Your task to perform on an android device: Show the shopping cart on costco. Add asus zenbook to the cart on costco Image 0: 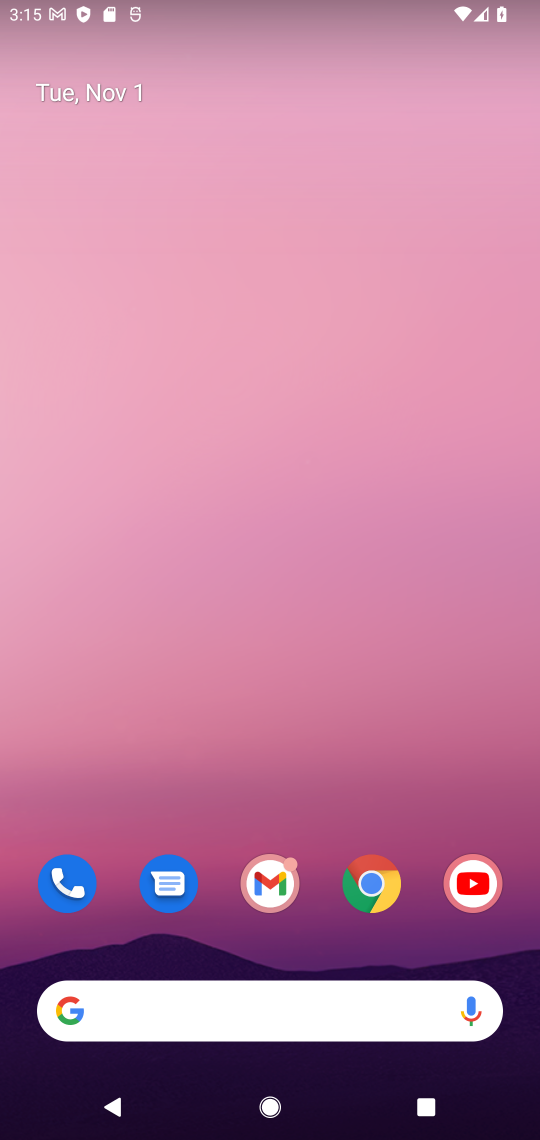
Step 0: click (367, 900)
Your task to perform on an android device: Show the shopping cart on costco. Add asus zenbook to the cart on costco Image 1: 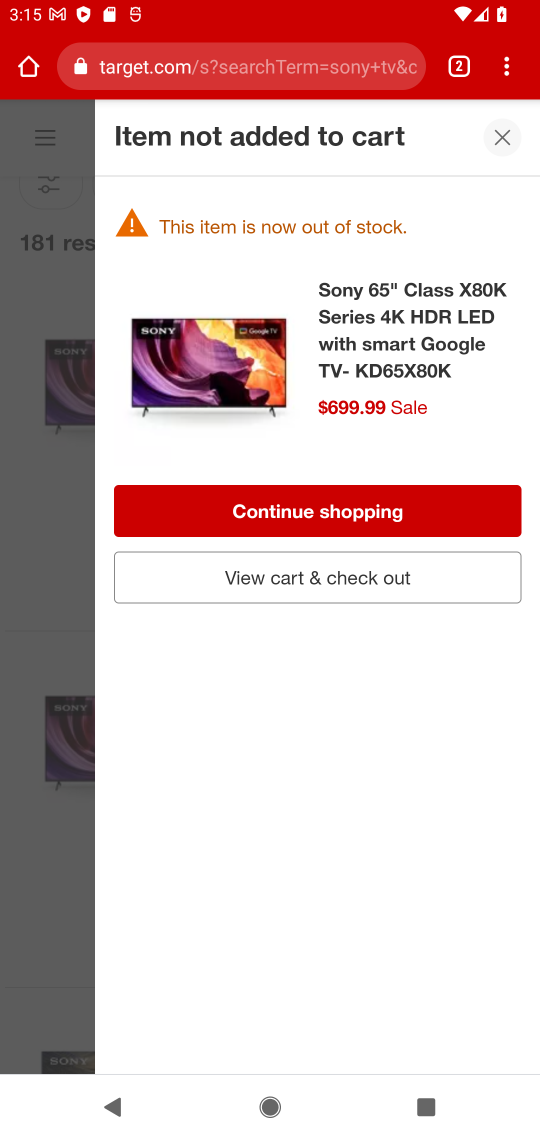
Step 1: click (456, 68)
Your task to perform on an android device: Show the shopping cart on costco. Add asus zenbook to the cart on costco Image 2: 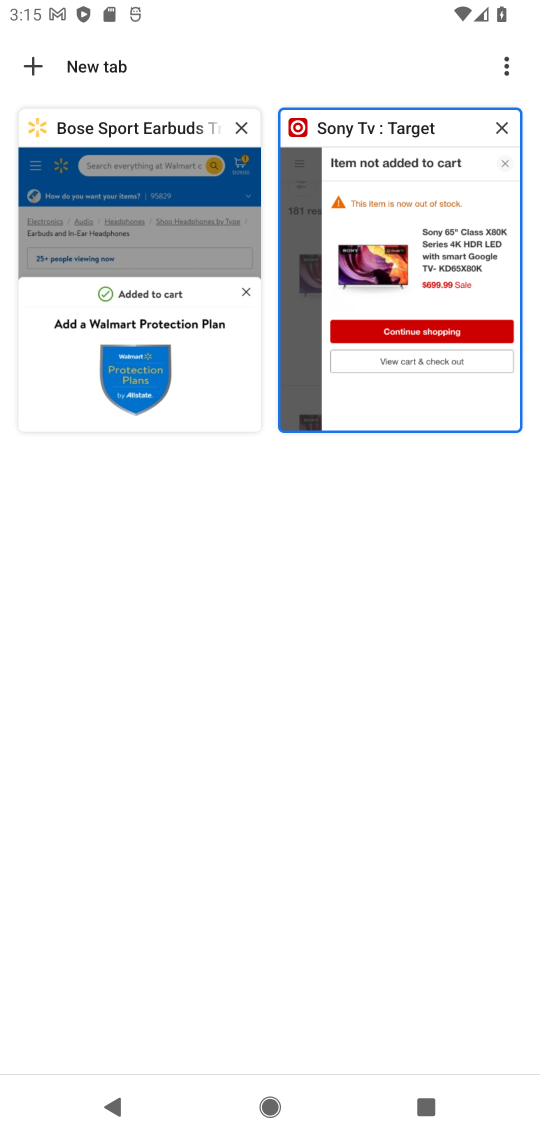
Step 2: click (31, 68)
Your task to perform on an android device: Show the shopping cart on costco. Add asus zenbook to the cart on costco Image 3: 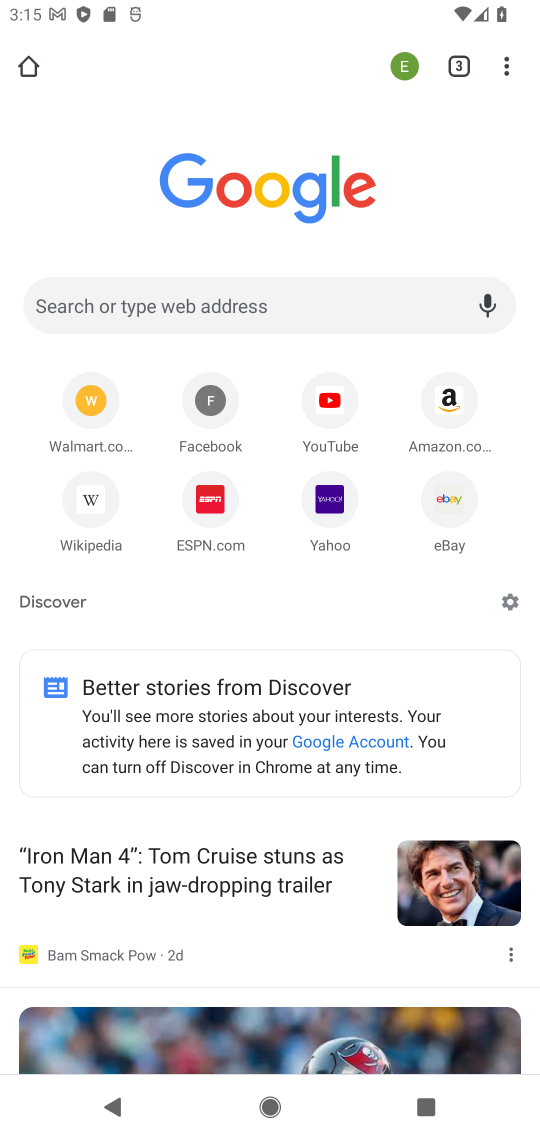
Step 3: click (336, 322)
Your task to perform on an android device: Show the shopping cart on costco. Add asus zenbook to the cart on costco Image 4: 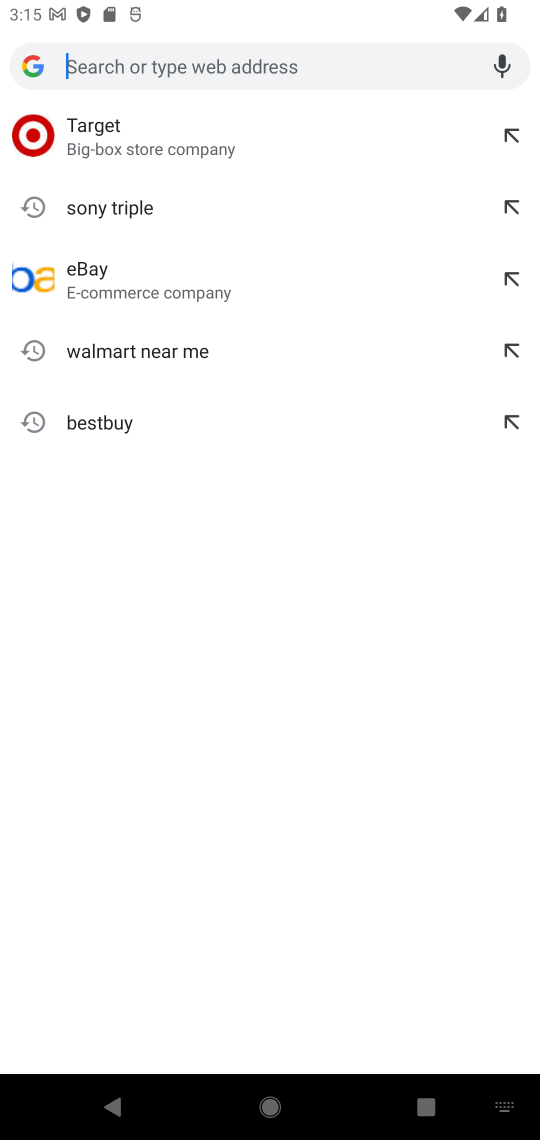
Step 4: type "costco"
Your task to perform on an android device: Show the shopping cart on costco. Add asus zenbook to the cart on costco Image 5: 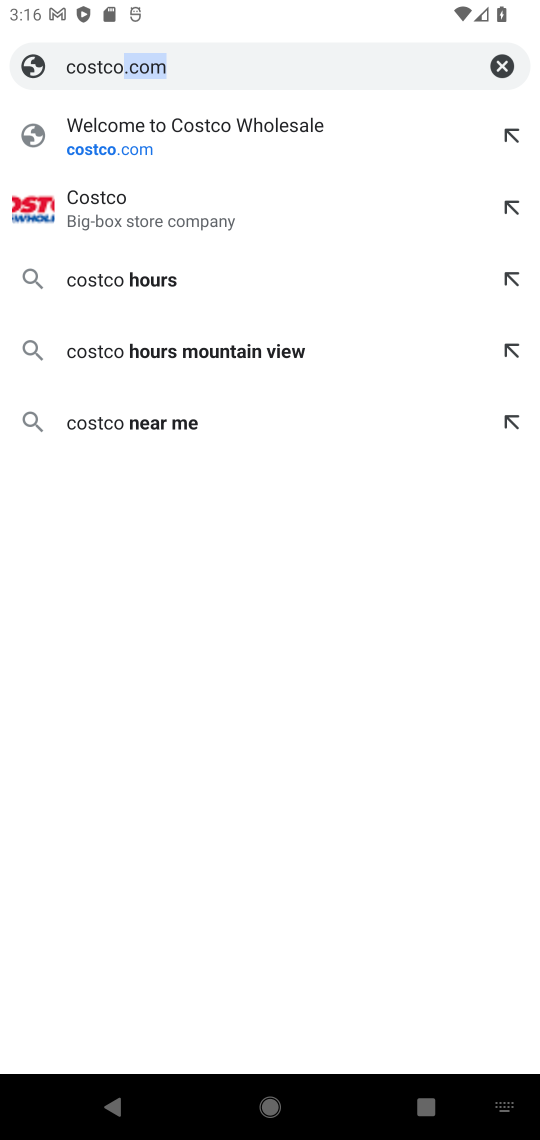
Step 5: click (82, 201)
Your task to perform on an android device: Show the shopping cart on costco. Add asus zenbook to the cart on costco Image 6: 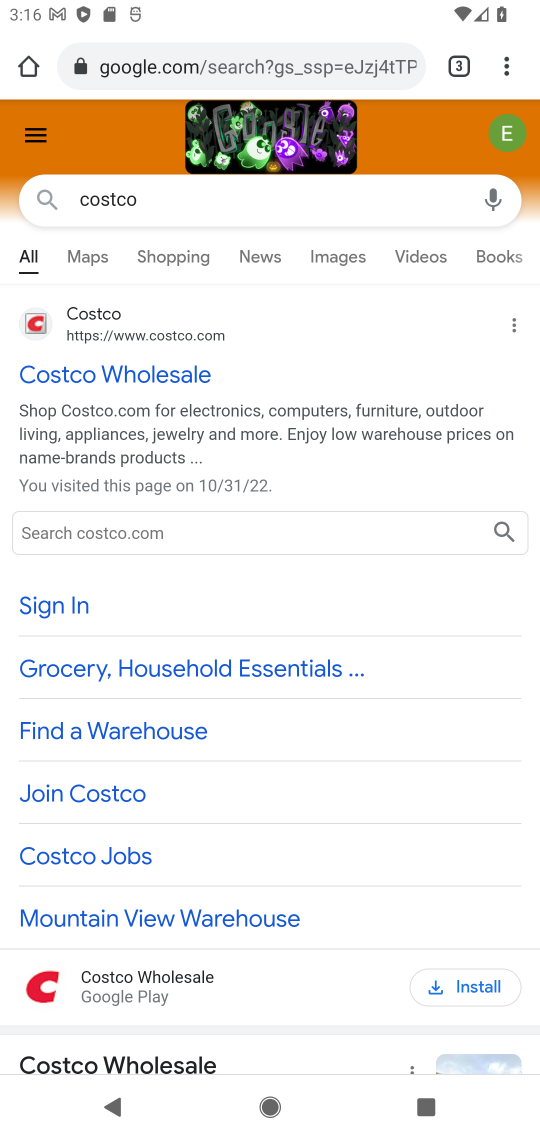
Step 6: click (42, 204)
Your task to perform on an android device: Show the shopping cart on costco. Add asus zenbook to the cart on costco Image 7: 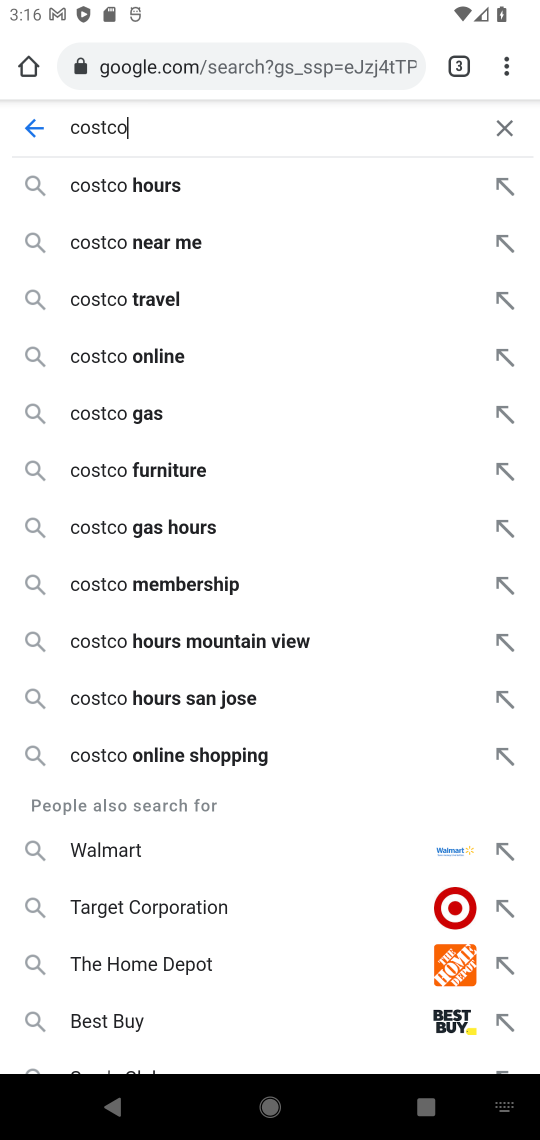
Step 7: click (497, 122)
Your task to perform on an android device: Show the shopping cart on costco. Add asus zenbook to the cart on costco Image 8: 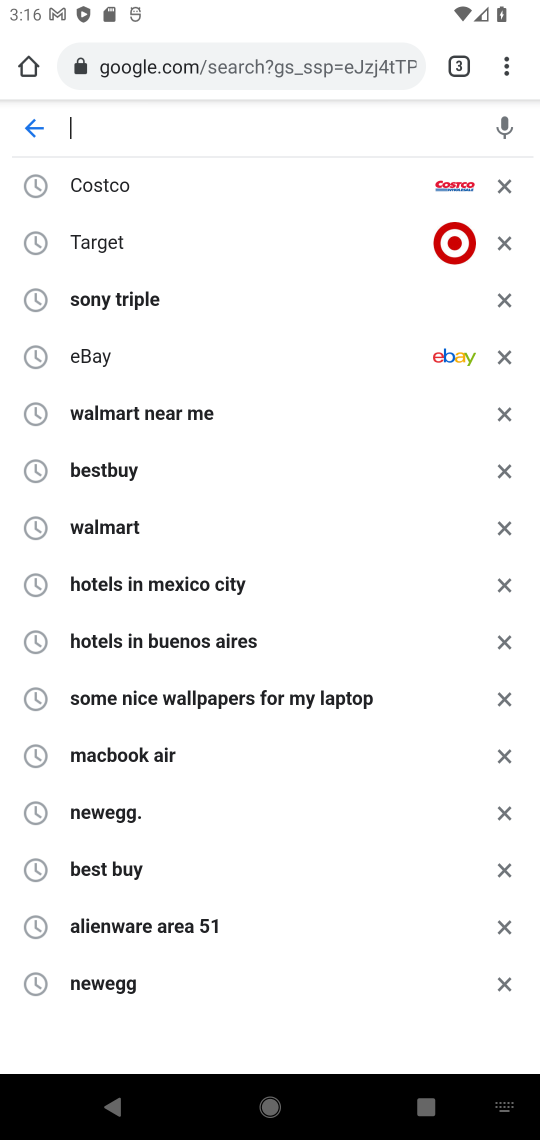
Step 8: click (121, 188)
Your task to perform on an android device: Show the shopping cart on costco. Add asus zenbook to the cart on costco Image 9: 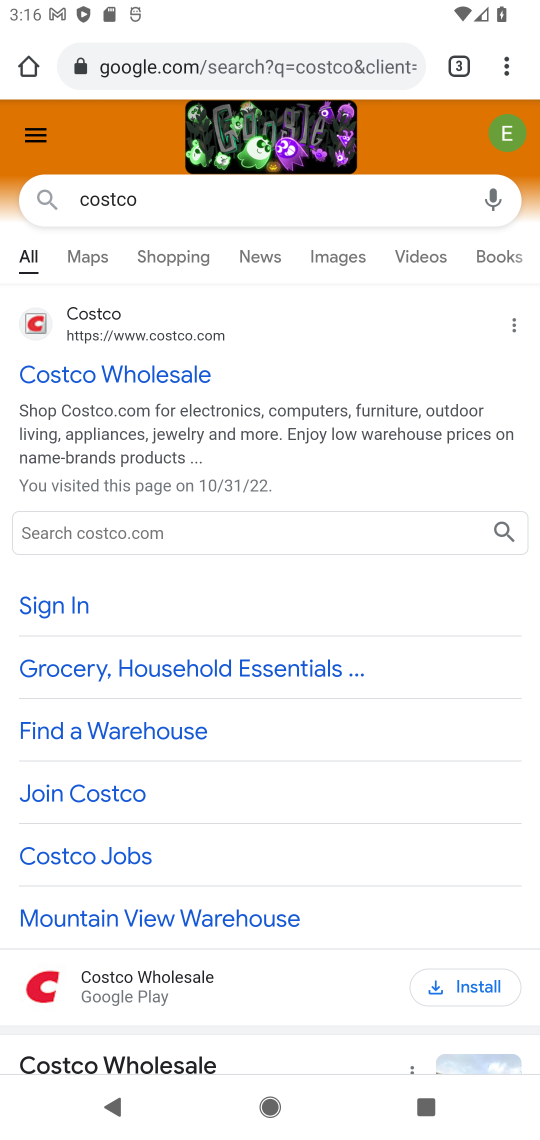
Step 9: click (107, 377)
Your task to perform on an android device: Show the shopping cart on costco. Add asus zenbook to the cart on costco Image 10: 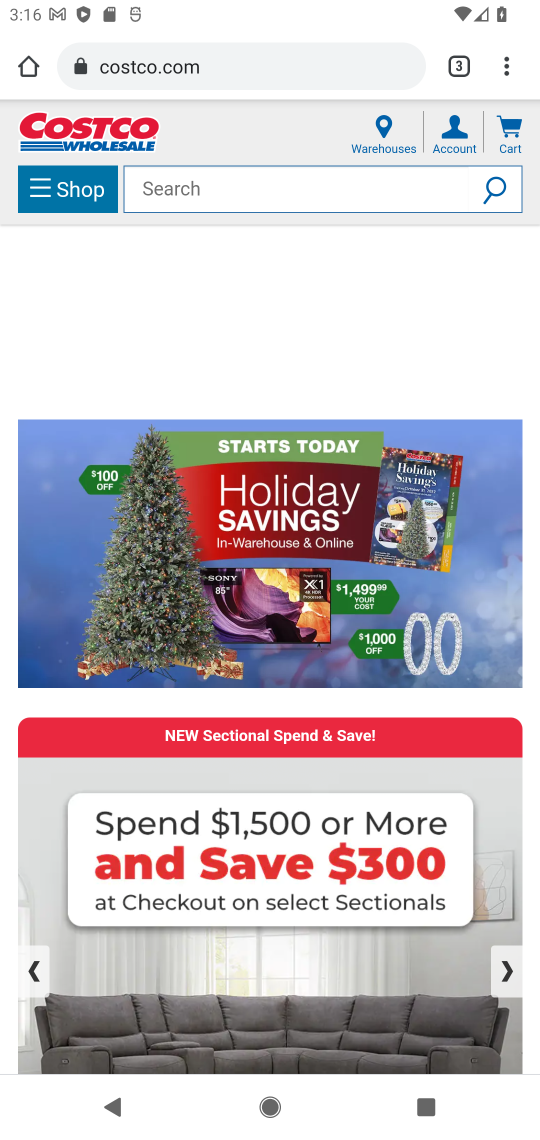
Step 10: click (285, 190)
Your task to perform on an android device: Show the shopping cart on costco. Add asus zenbook to the cart on costco Image 11: 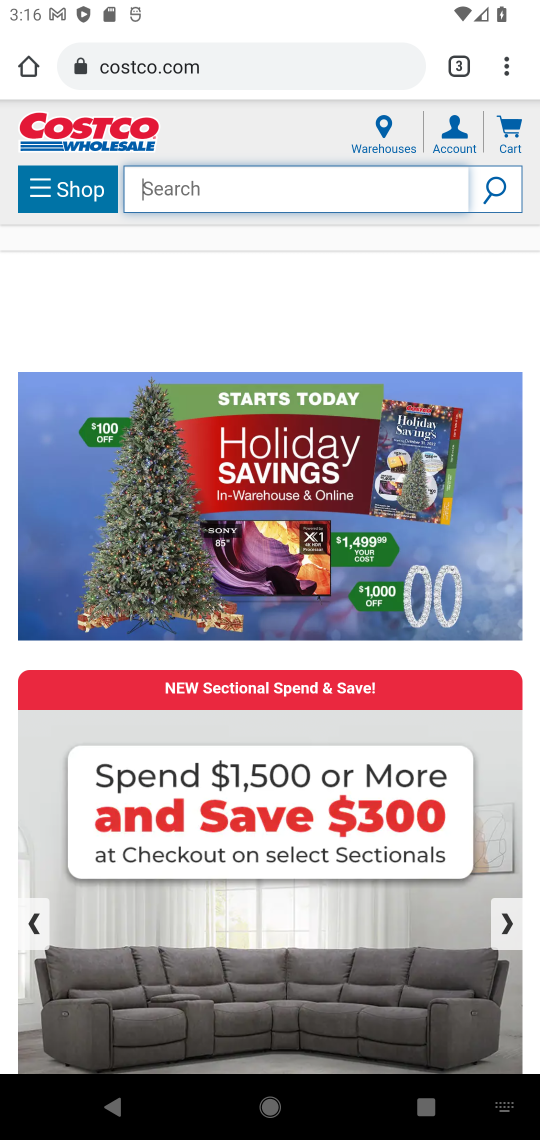
Step 11: type "asus zenbook"
Your task to perform on an android device: Show the shopping cart on costco. Add asus zenbook to the cart on costco Image 12: 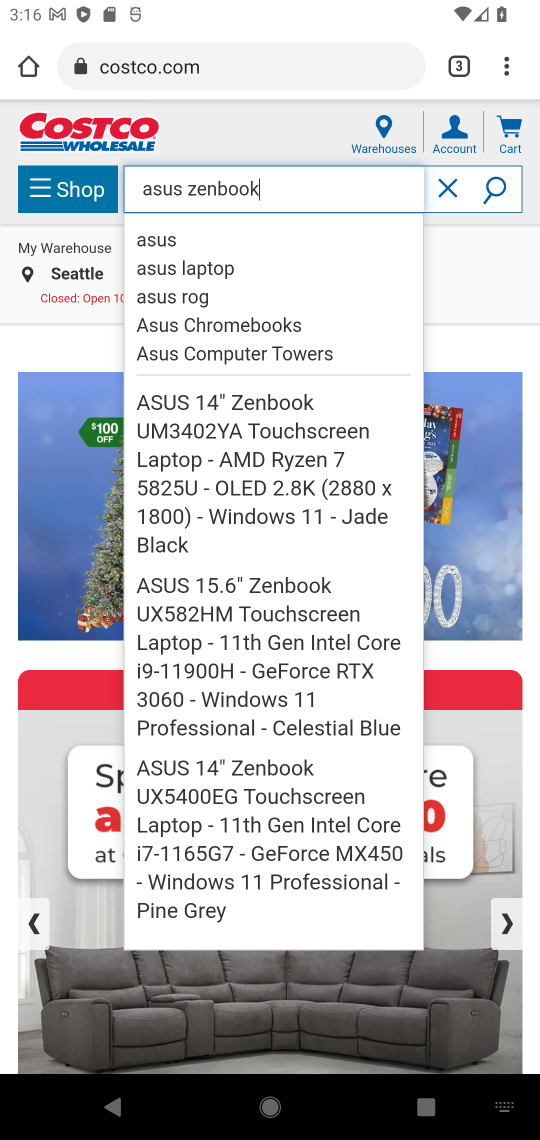
Step 12: click (156, 241)
Your task to perform on an android device: Show the shopping cart on costco. Add asus zenbook to the cart on costco Image 13: 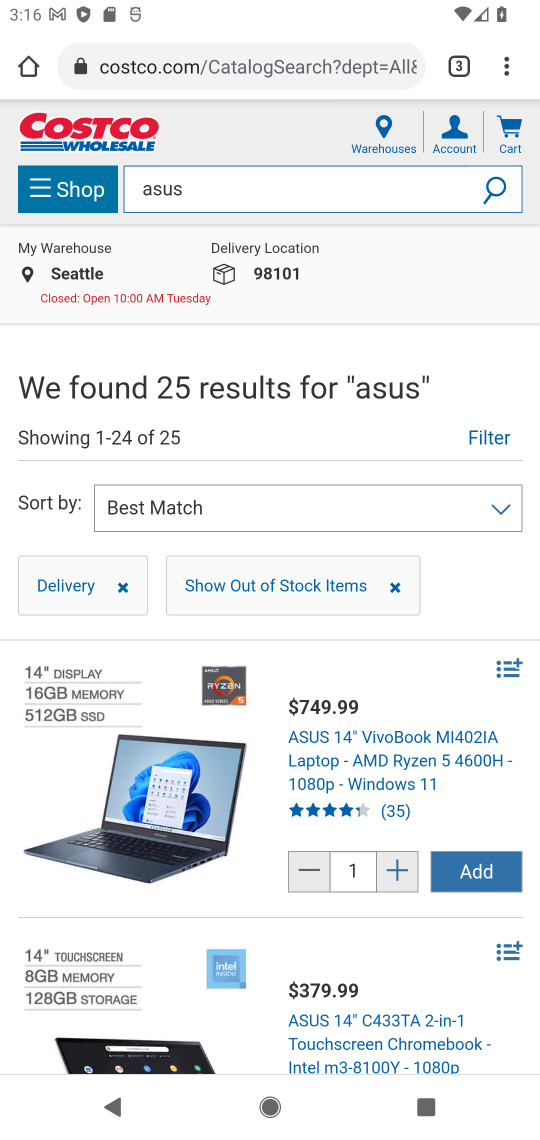
Step 13: drag from (212, 995) to (244, 363)
Your task to perform on an android device: Show the shopping cart on costco. Add asus zenbook to the cart on costco Image 14: 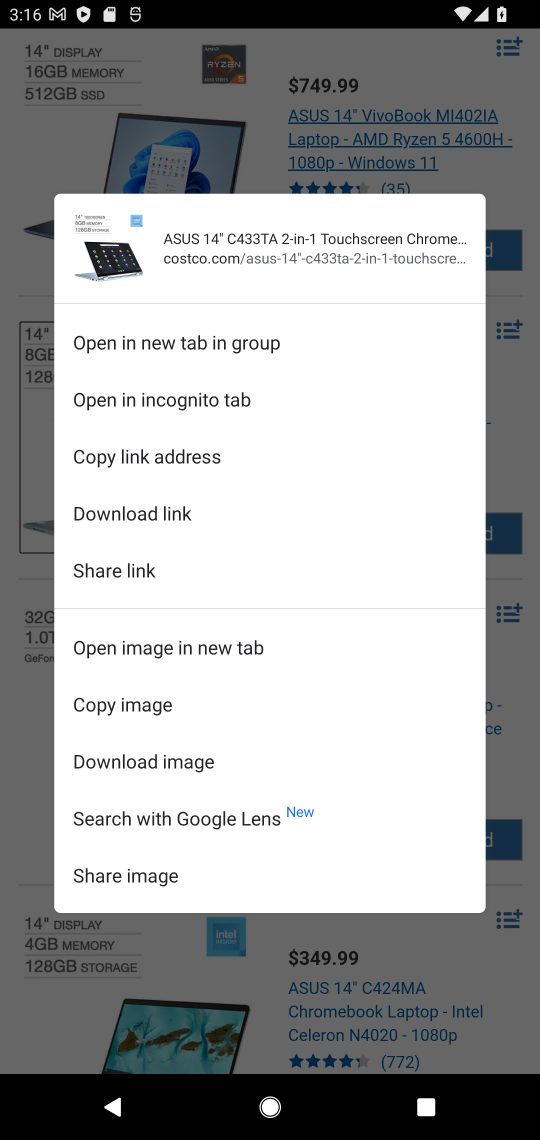
Step 14: click (523, 398)
Your task to perform on an android device: Show the shopping cart on costco. Add asus zenbook to the cart on costco Image 15: 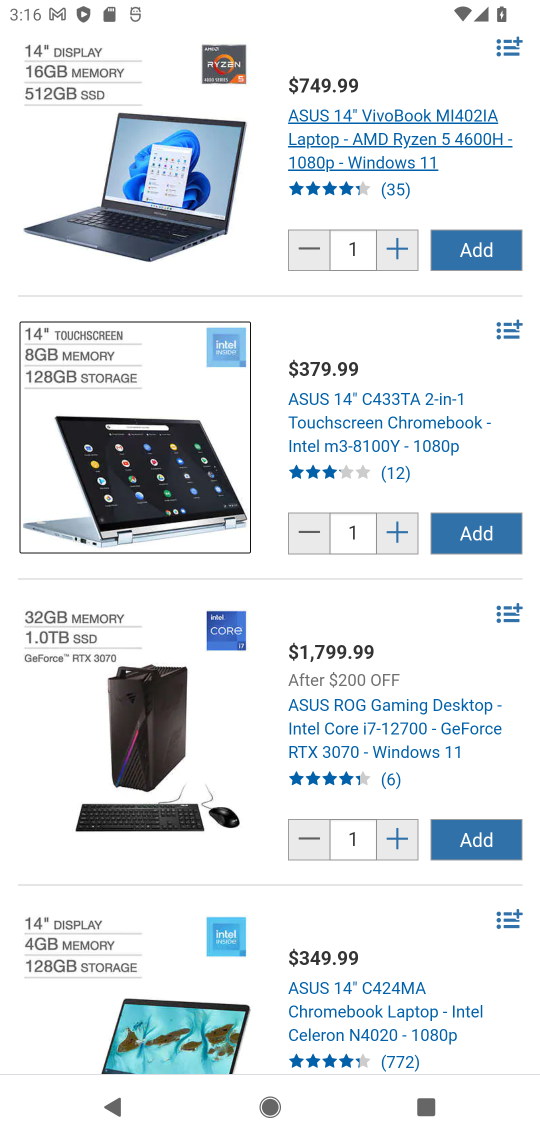
Step 15: click (384, 157)
Your task to perform on an android device: Show the shopping cart on costco. Add asus zenbook to the cart on costco Image 16: 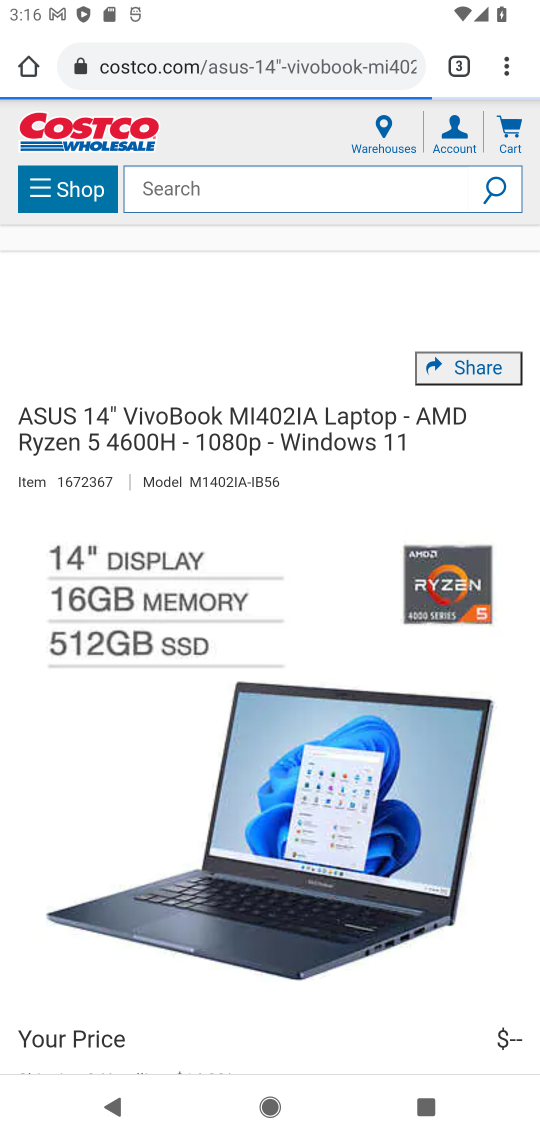
Step 16: drag from (38, 883) to (294, 407)
Your task to perform on an android device: Show the shopping cart on costco. Add asus zenbook to the cart on costco Image 17: 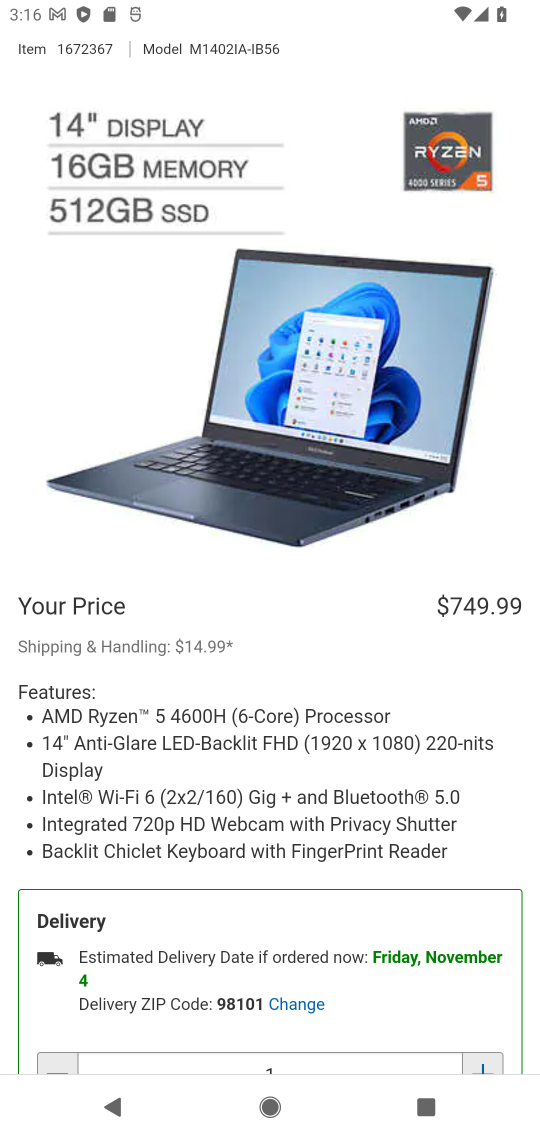
Step 17: drag from (249, 873) to (403, 212)
Your task to perform on an android device: Show the shopping cart on costco. Add asus zenbook to the cart on costco Image 18: 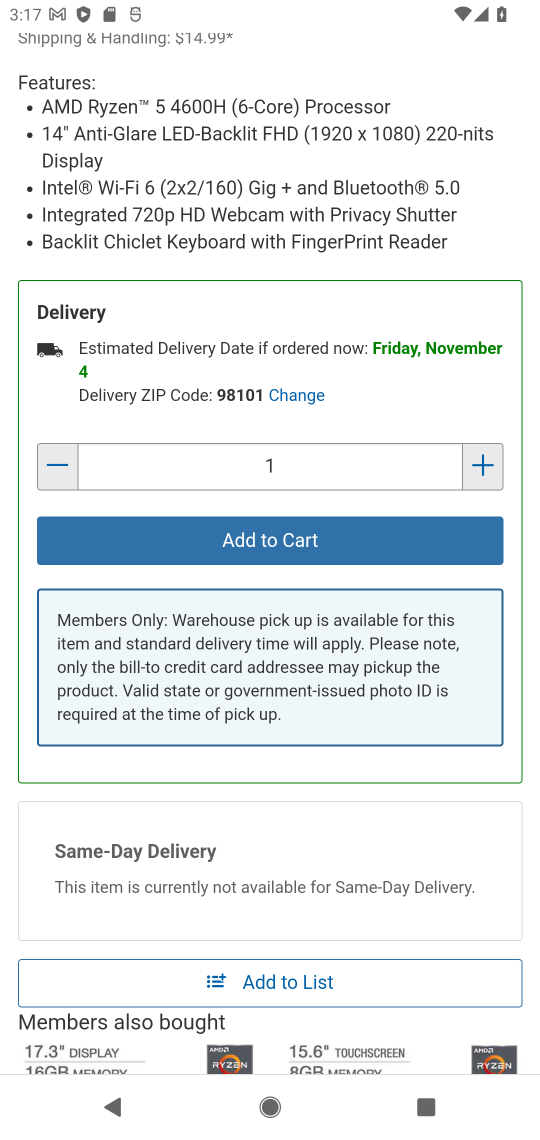
Step 18: click (286, 548)
Your task to perform on an android device: Show the shopping cart on costco. Add asus zenbook to the cart on costco Image 19: 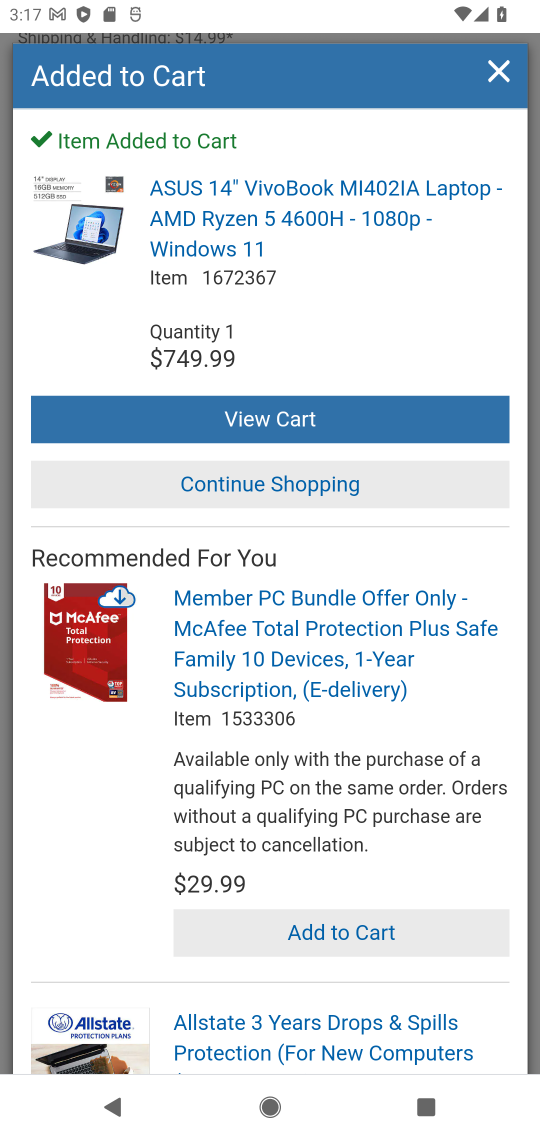
Step 19: task complete